Your task to perform on an android device: all mails in gmail Image 0: 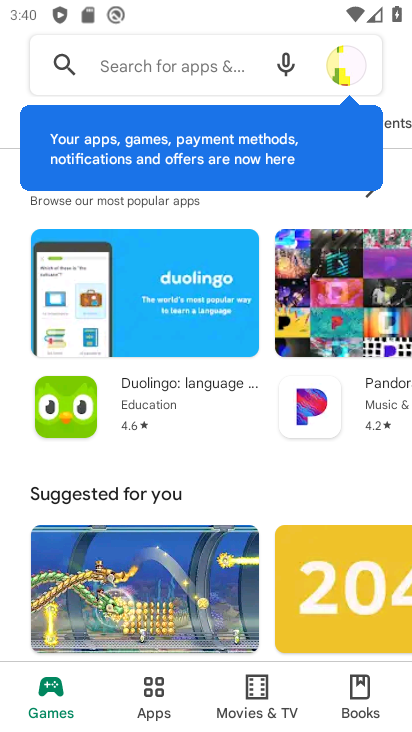
Step 0: press home button
Your task to perform on an android device: all mails in gmail Image 1: 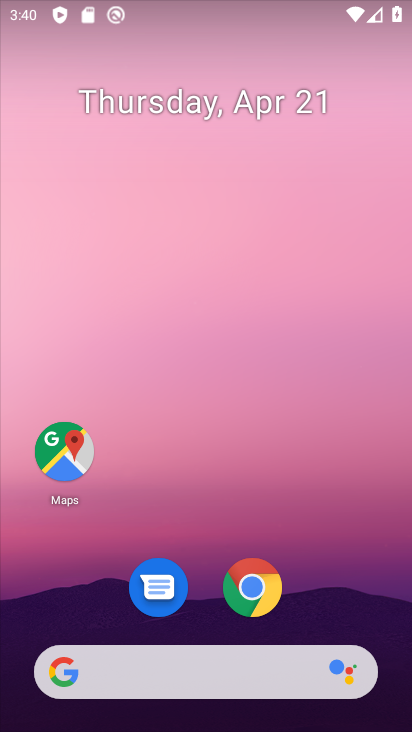
Step 1: drag from (383, 630) to (345, 4)
Your task to perform on an android device: all mails in gmail Image 2: 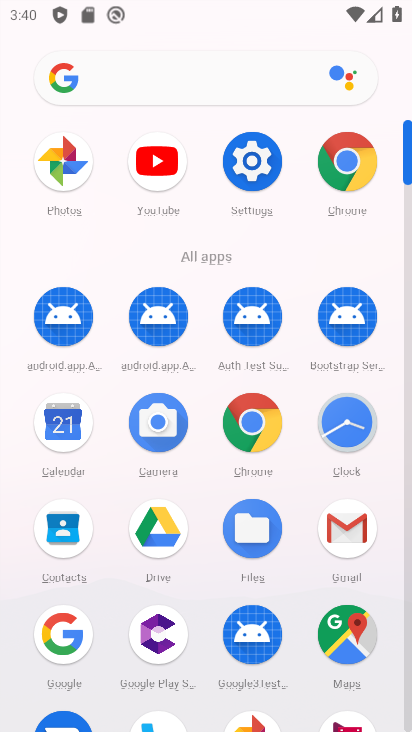
Step 2: click (345, 534)
Your task to perform on an android device: all mails in gmail Image 3: 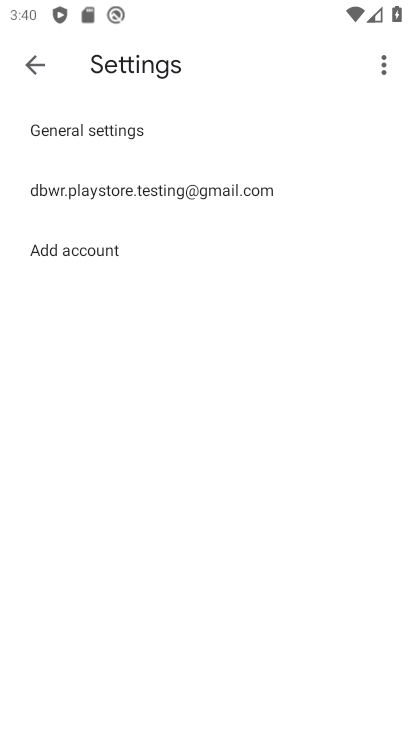
Step 3: click (33, 60)
Your task to perform on an android device: all mails in gmail Image 4: 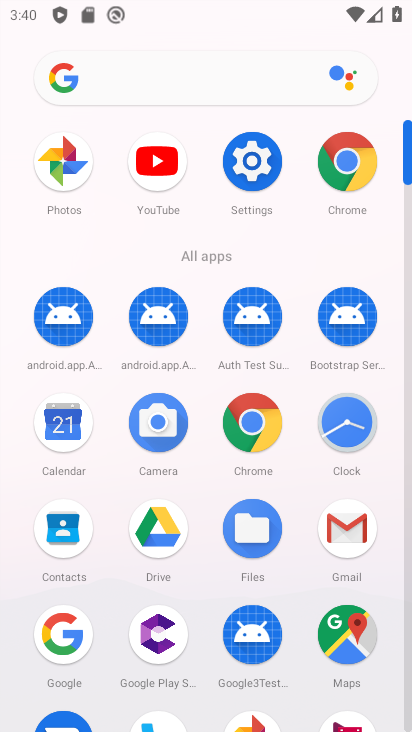
Step 4: click (343, 533)
Your task to perform on an android device: all mails in gmail Image 5: 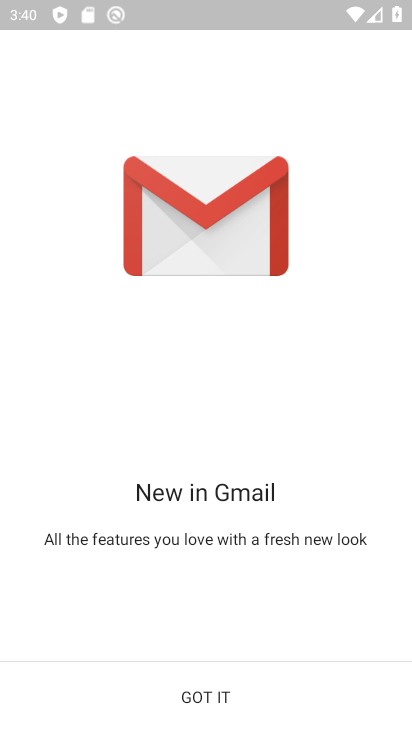
Step 5: click (213, 700)
Your task to perform on an android device: all mails in gmail Image 6: 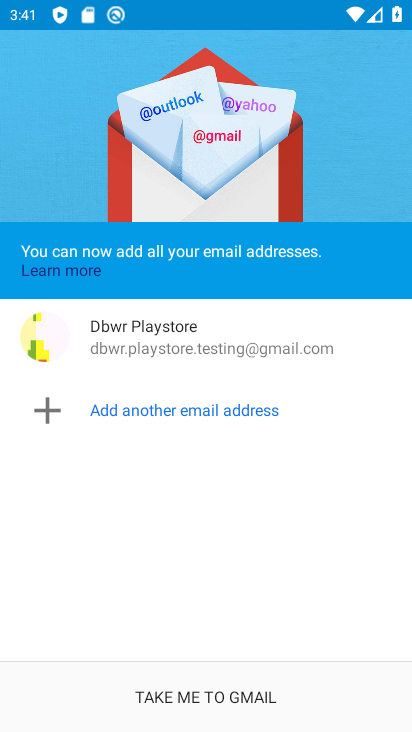
Step 6: click (213, 700)
Your task to perform on an android device: all mails in gmail Image 7: 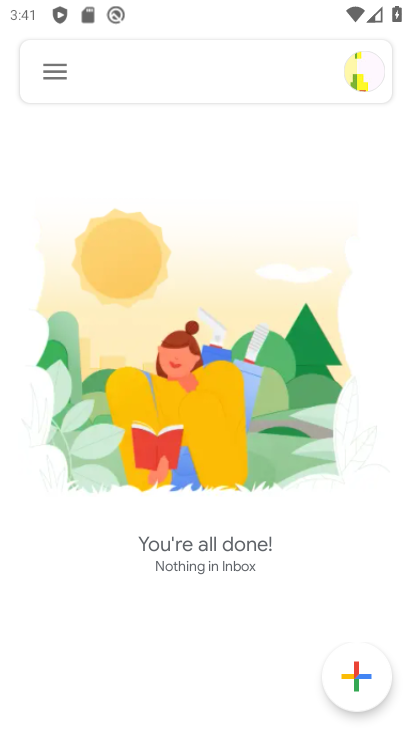
Step 7: click (63, 77)
Your task to perform on an android device: all mails in gmail Image 8: 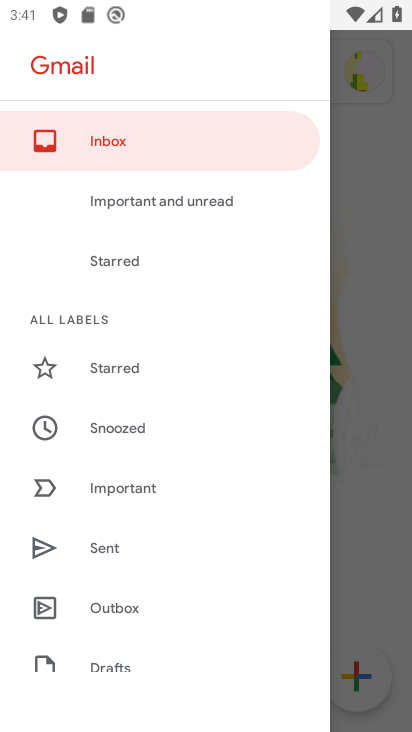
Step 8: drag from (206, 641) to (212, 429)
Your task to perform on an android device: all mails in gmail Image 9: 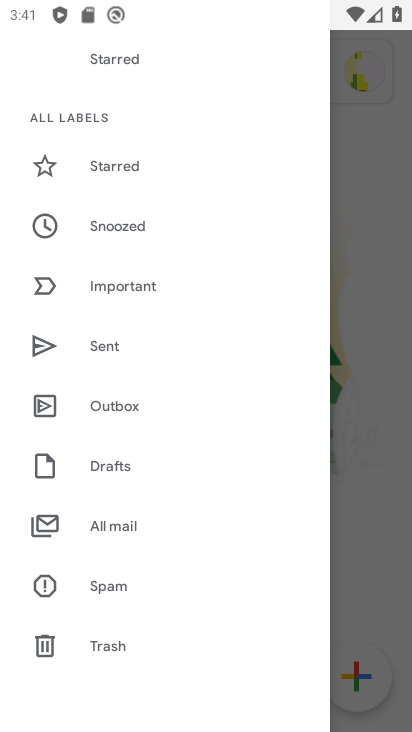
Step 9: click (122, 523)
Your task to perform on an android device: all mails in gmail Image 10: 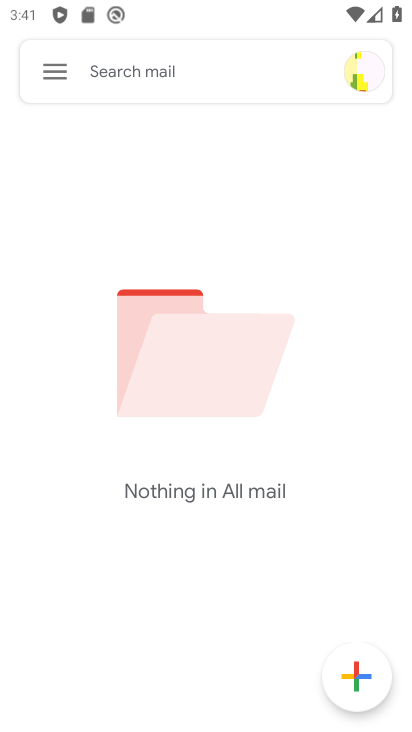
Step 10: task complete